Your task to perform on an android device: turn pop-ups off in chrome Image 0: 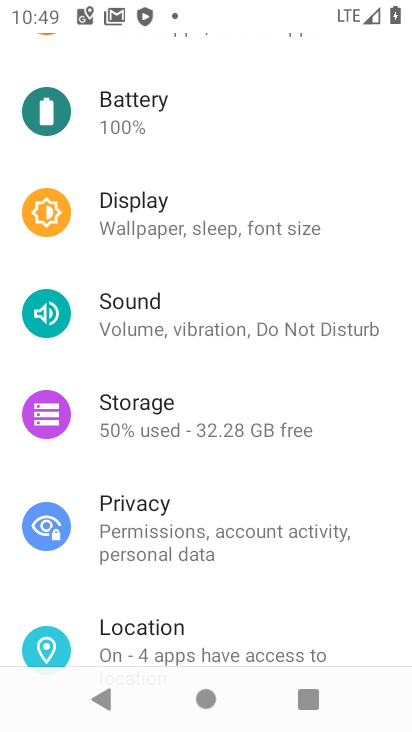
Step 0: task complete